Your task to perform on an android device: Open the calendar app, open the side menu, and click the "Day" option Image 0: 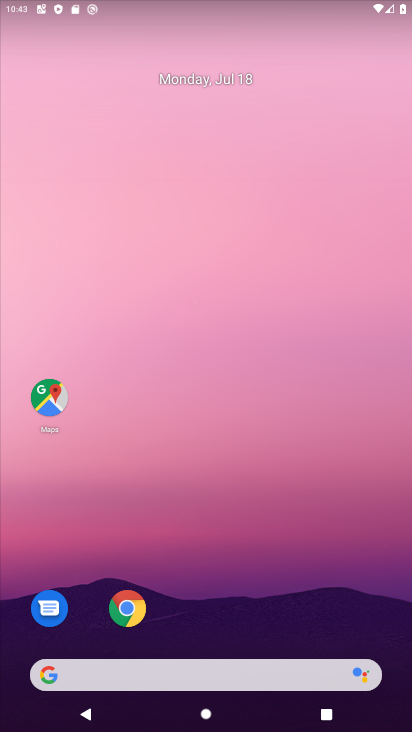
Step 0: drag from (185, 600) to (201, 66)
Your task to perform on an android device: Open the calendar app, open the side menu, and click the "Day" option Image 1: 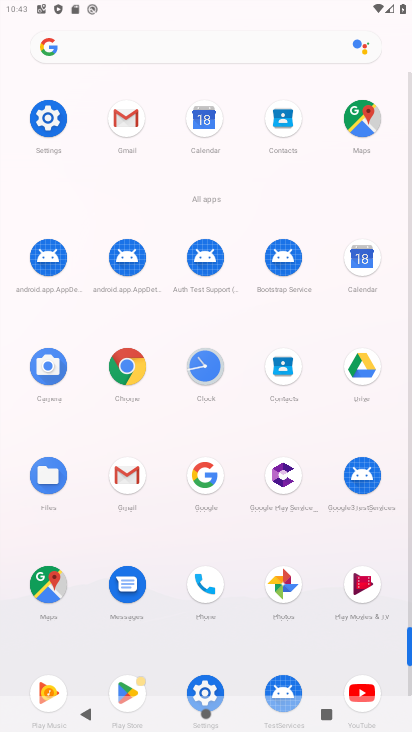
Step 1: click (362, 281)
Your task to perform on an android device: Open the calendar app, open the side menu, and click the "Day" option Image 2: 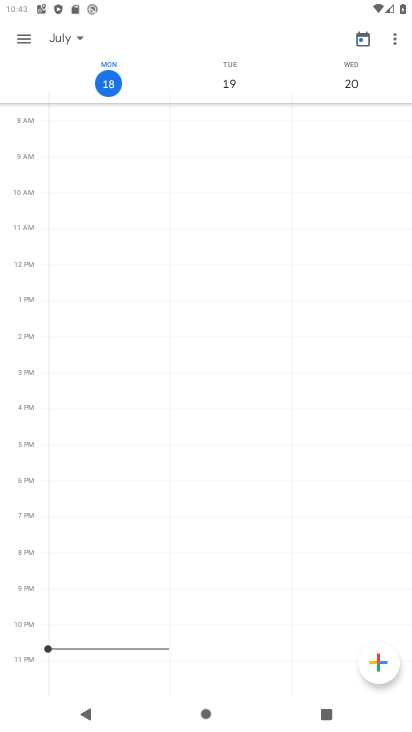
Step 2: click (30, 33)
Your task to perform on an android device: Open the calendar app, open the side menu, and click the "Day" option Image 3: 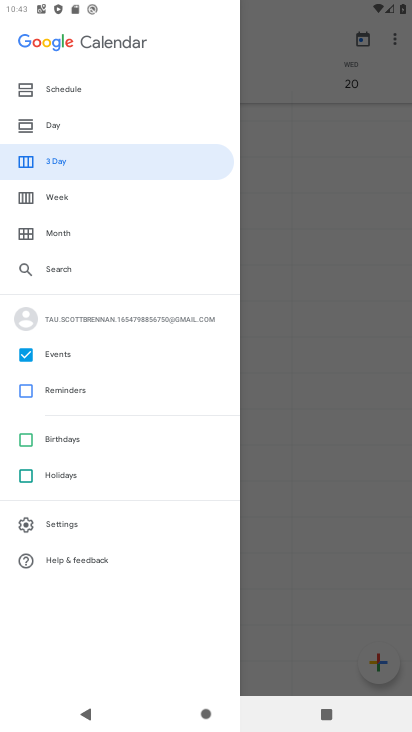
Step 3: click (71, 130)
Your task to perform on an android device: Open the calendar app, open the side menu, and click the "Day" option Image 4: 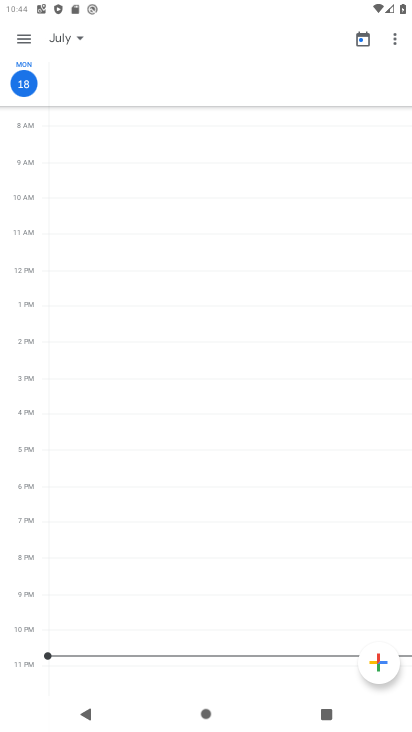
Step 4: task complete